Your task to perform on an android device: Check the weather Image 0: 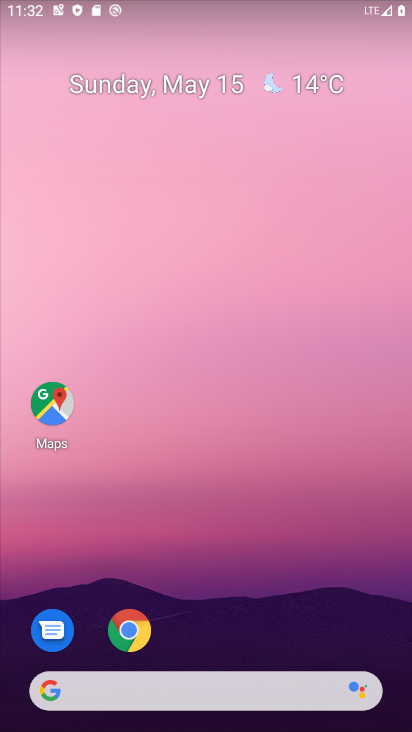
Step 0: click (133, 690)
Your task to perform on an android device: Check the weather Image 1: 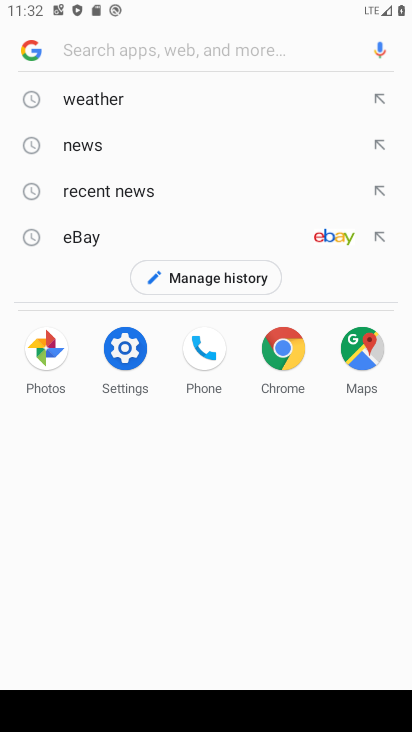
Step 1: click (132, 98)
Your task to perform on an android device: Check the weather Image 2: 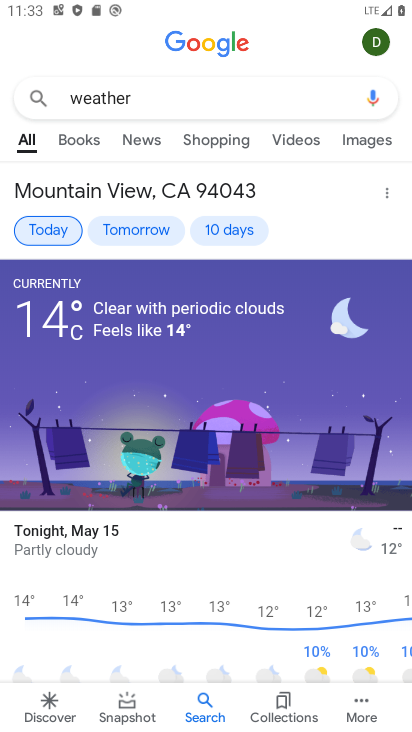
Step 2: task complete